Your task to perform on an android device: Go to privacy settings Image 0: 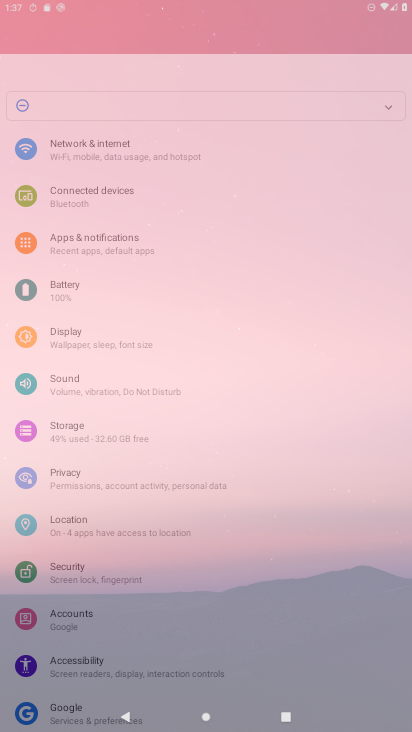
Step 0: press home button
Your task to perform on an android device: Go to privacy settings Image 1: 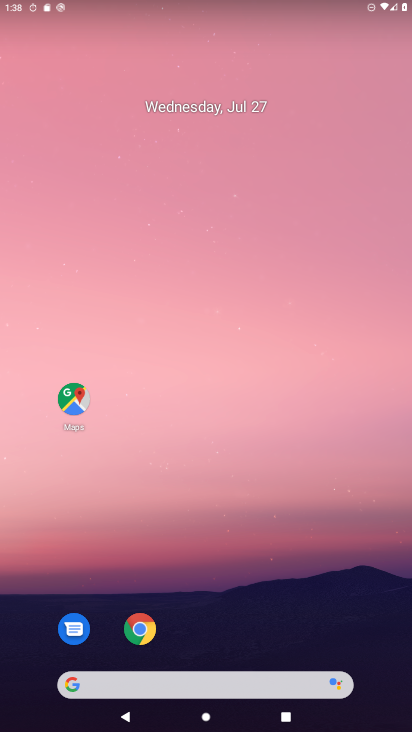
Step 1: drag from (252, 629) to (269, 6)
Your task to perform on an android device: Go to privacy settings Image 2: 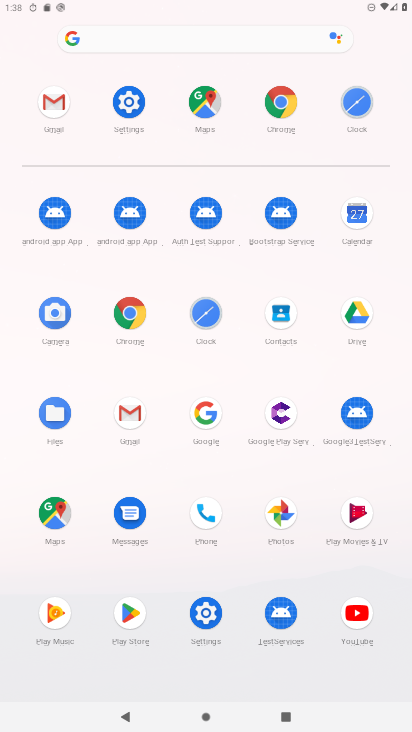
Step 2: click (123, 100)
Your task to perform on an android device: Go to privacy settings Image 3: 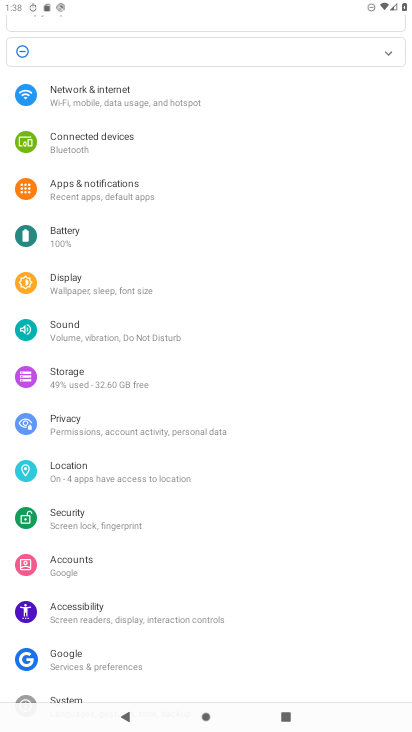
Step 3: click (65, 428)
Your task to perform on an android device: Go to privacy settings Image 4: 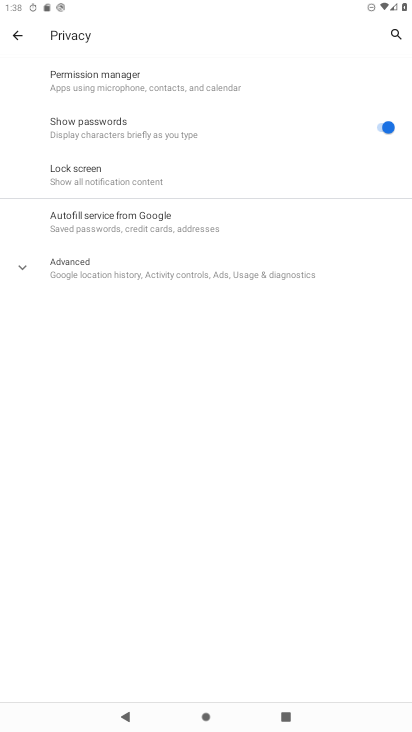
Step 4: task complete